Your task to perform on an android device: delete browsing data in the chrome app Image 0: 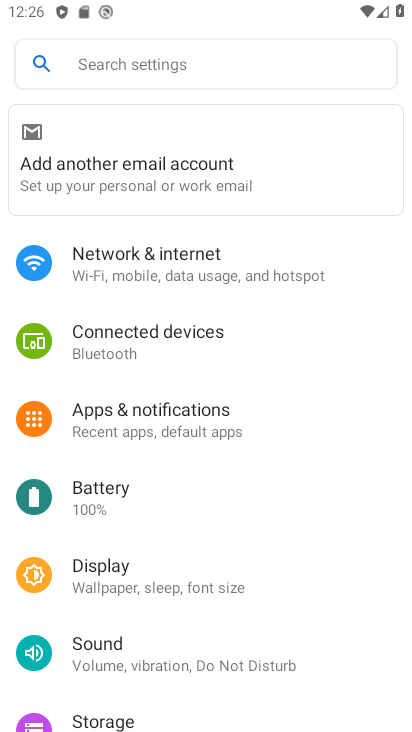
Step 0: press back button
Your task to perform on an android device: delete browsing data in the chrome app Image 1: 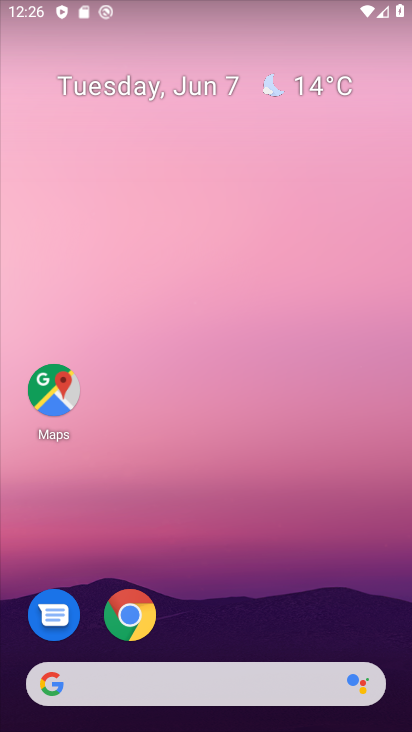
Step 1: click (132, 615)
Your task to perform on an android device: delete browsing data in the chrome app Image 2: 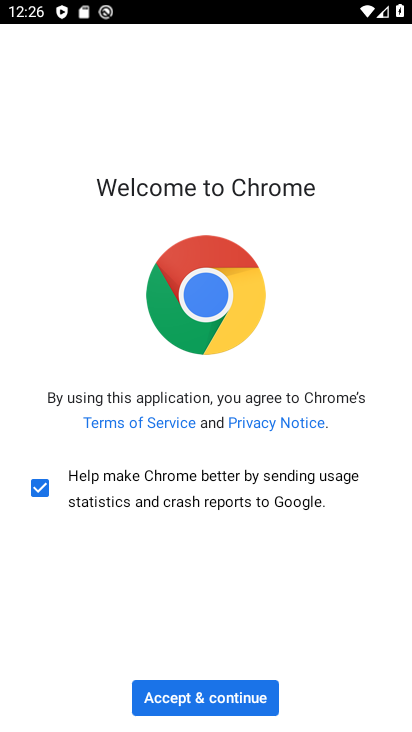
Step 2: click (198, 697)
Your task to perform on an android device: delete browsing data in the chrome app Image 3: 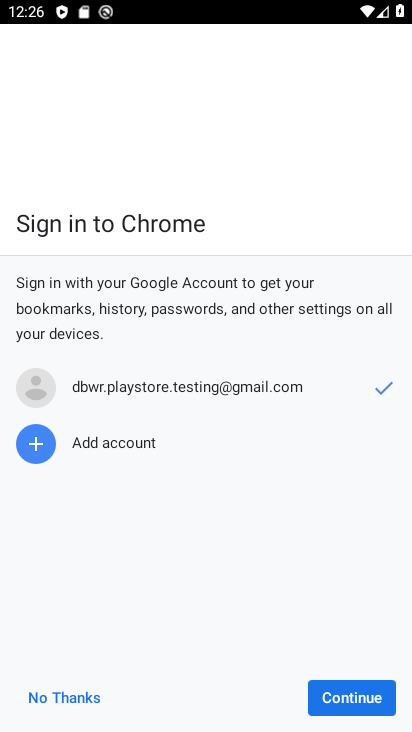
Step 3: click (363, 693)
Your task to perform on an android device: delete browsing data in the chrome app Image 4: 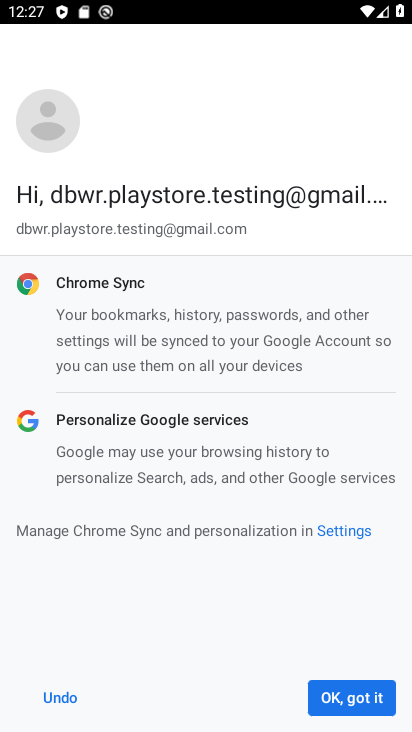
Step 4: click (363, 693)
Your task to perform on an android device: delete browsing data in the chrome app Image 5: 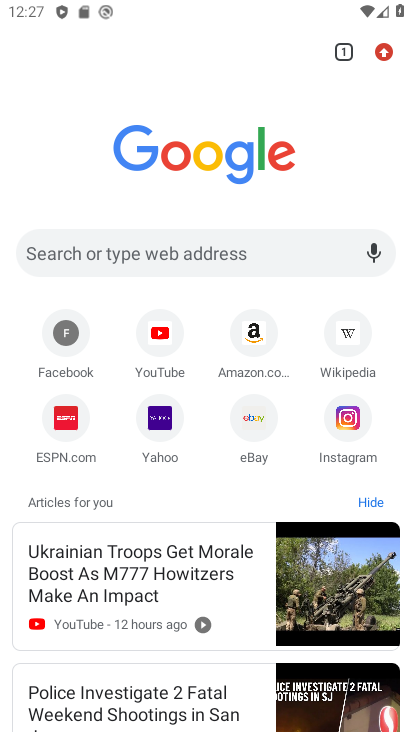
Step 5: click (385, 54)
Your task to perform on an android device: delete browsing data in the chrome app Image 6: 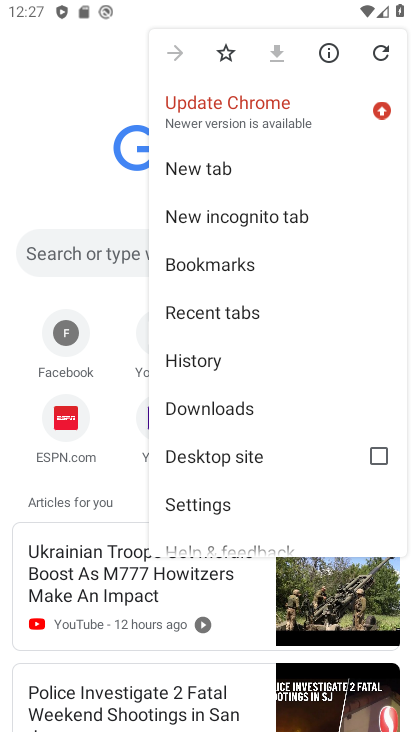
Step 6: click (200, 505)
Your task to perform on an android device: delete browsing data in the chrome app Image 7: 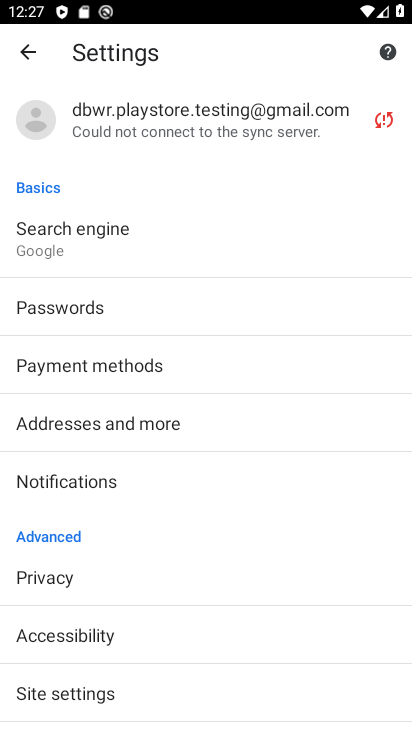
Step 7: drag from (83, 508) to (167, 387)
Your task to perform on an android device: delete browsing data in the chrome app Image 8: 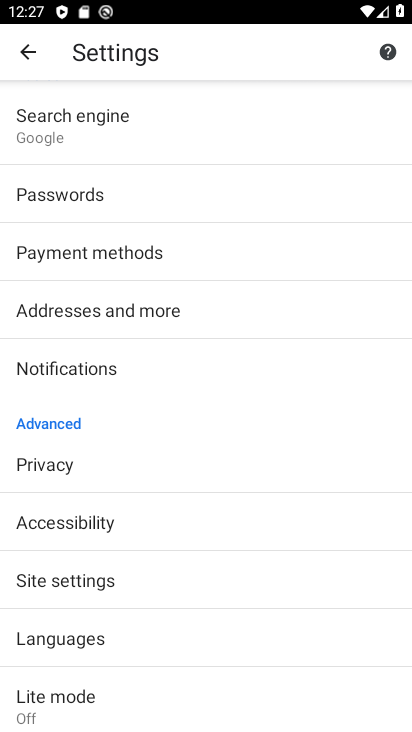
Step 8: click (52, 470)
Your task to perform on an android device: delete browsing data in the chrome app Image 9: 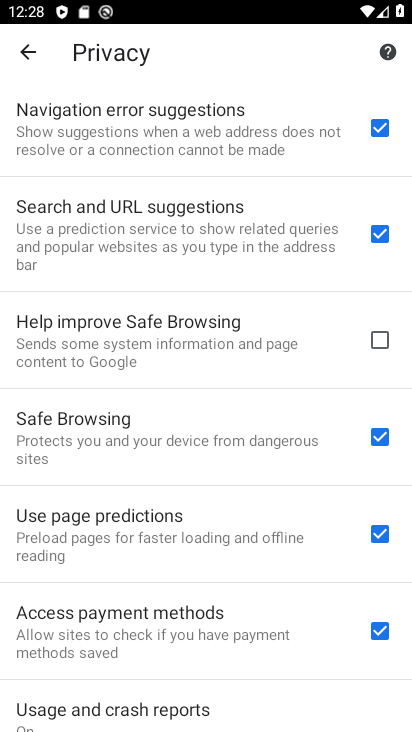
Step 9: drag from (129, 577) to (187, 382)
Your task to perform on an android device: delete browsing data in the chrome app Image 10: 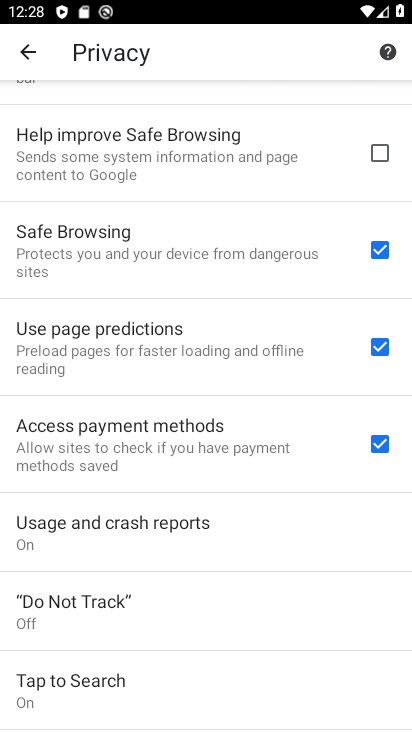
Step 10: drag from (152, 606) to (244, 476)
Your task to perform on an android device: delete browsing data in the chrome app Image 11: 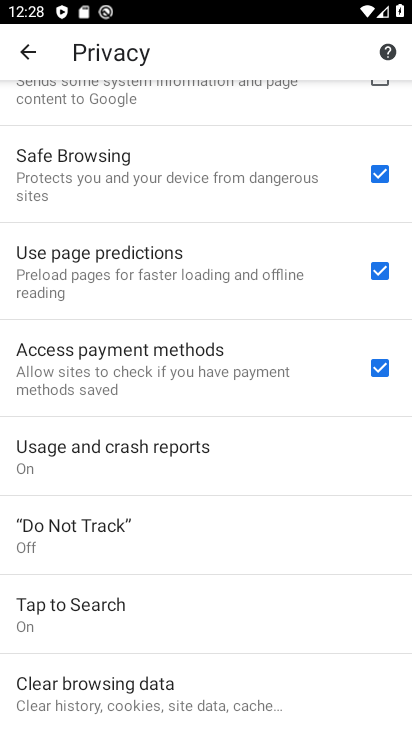
Step 11: click (121, 688)
Your task to perform on an android device: delete browsing data in the chrome app Image 12: 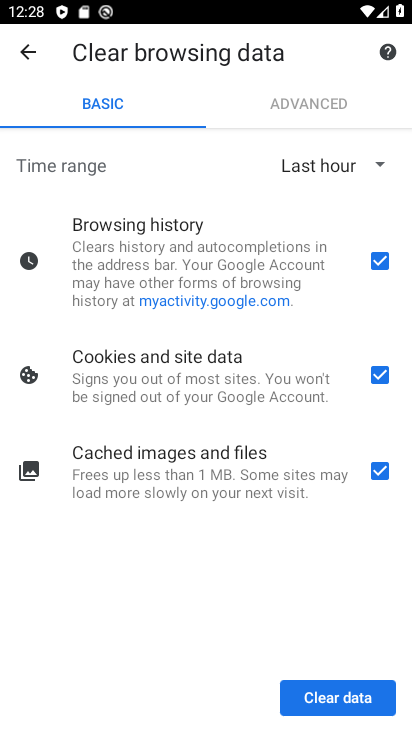
Step 12: click (327, 702)
Your task to perform on an android device: delete browsing data in the chrome app Image 13: 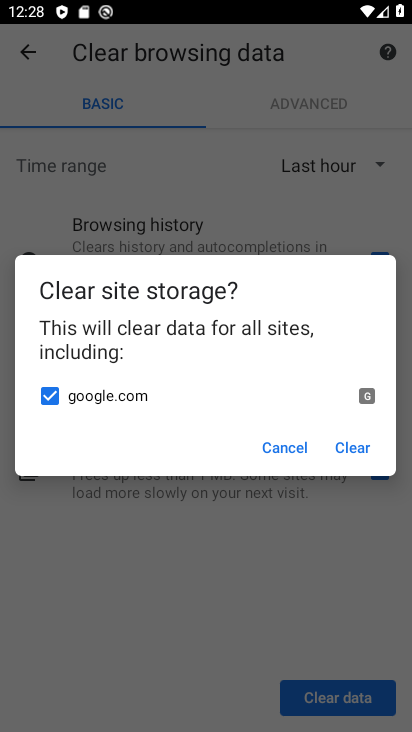
Step 13: click (361, 445)
Your task to perform on an android device: delete browsing data in the chrome app Image 14: 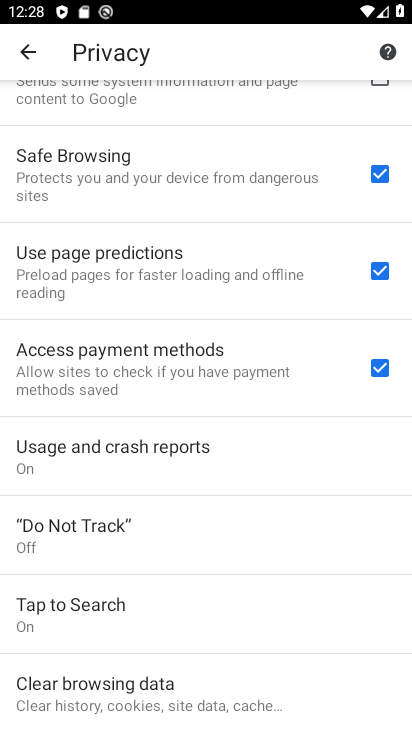
Step 14: task complete